Your task to perform on an android device: Open Youtube and go to "Your channel" Image 0: 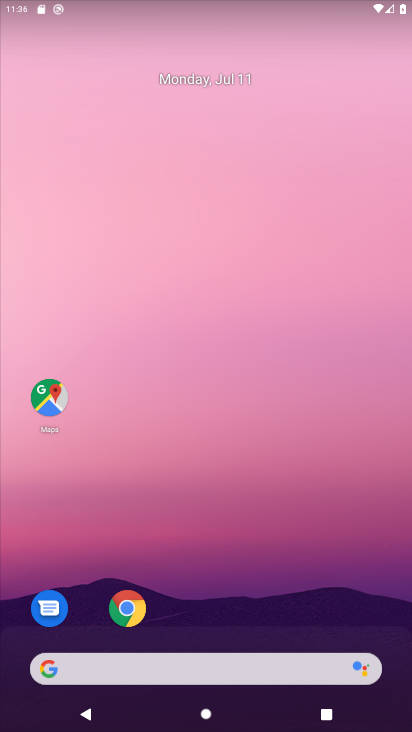
Step 0: drag from (272, 653) to (285, 120)
Your task to perform on an android device: Open Youtube and go to "Your channel" Image 1: 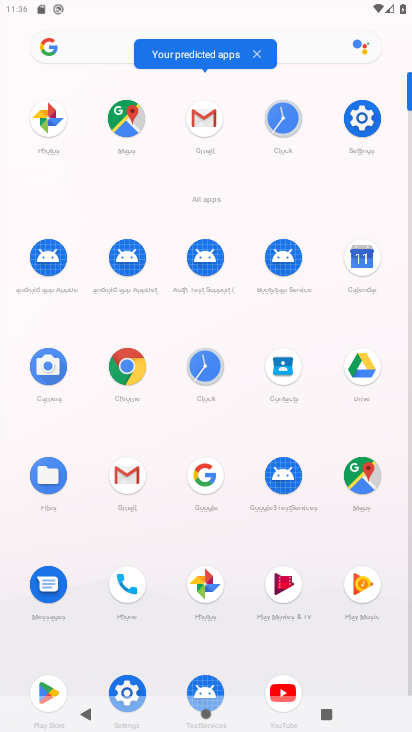
Step 1: click (272, 680)
Your task to perform on an android device: Open Youtube and go to "Your channel" Image 2: 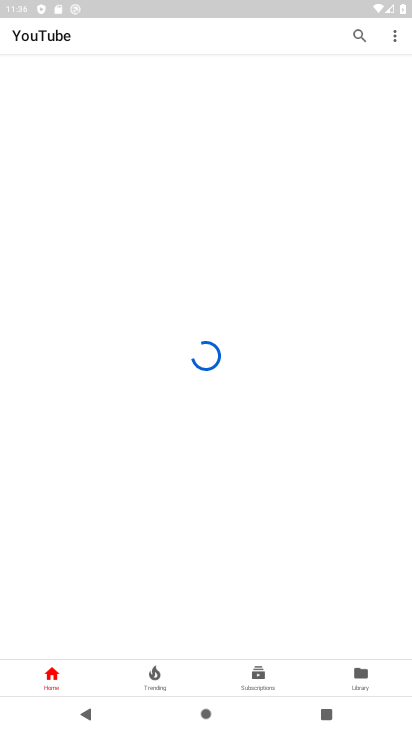
Step 2: click (381, 680)
Your task to perform on an android device: Open Youtube and go to "Your channel" Image 3: 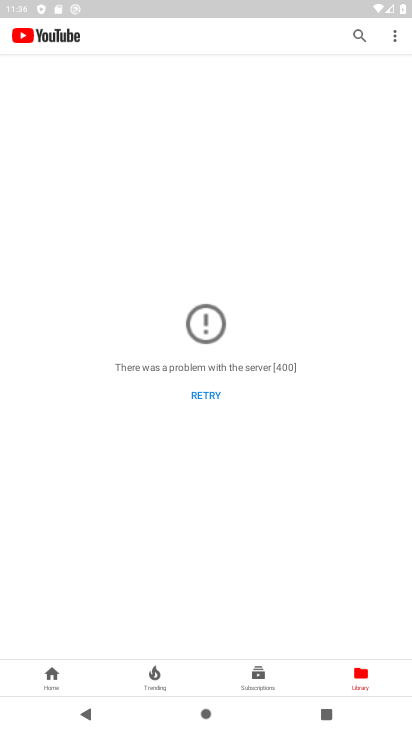
Step 3: task complete